Your task to perform on an android device: turn on bluetooth scan Image 0: 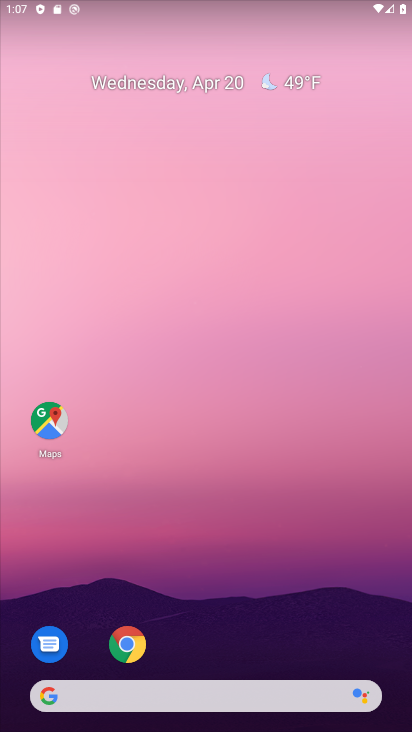
Step 0: drag from (213, 563) to (213, 204)
Your task to perform on an android device: turn on bluetooth scan Image 1: 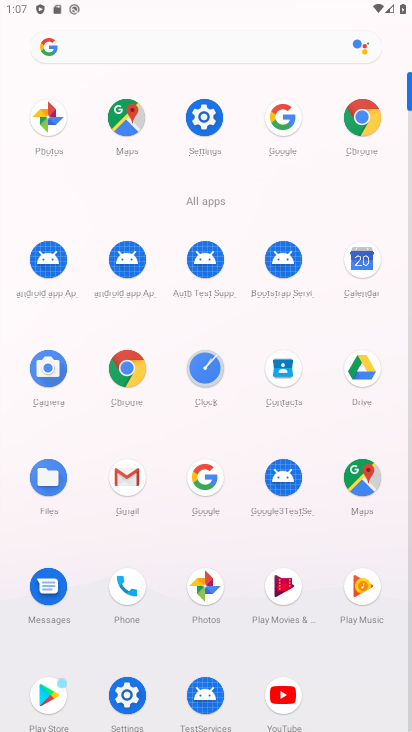
Step 1: click (135, 698)
Your task to perform on an android device: turn on bluetooth scan Image 2: 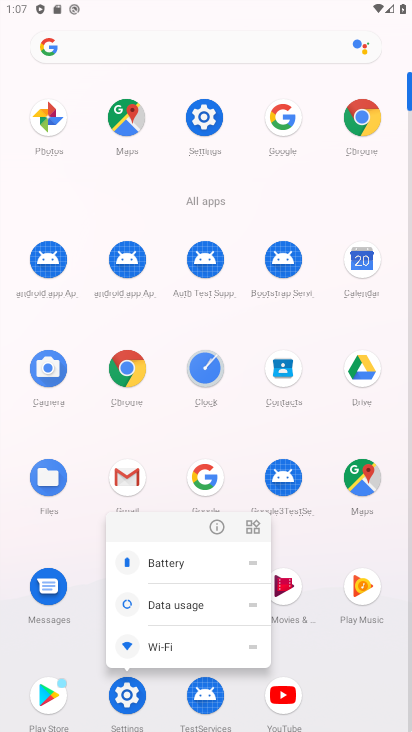
Step 2: click (126, 700)
Your task to perform on an android device: turn on bluetooth scan Image 3: 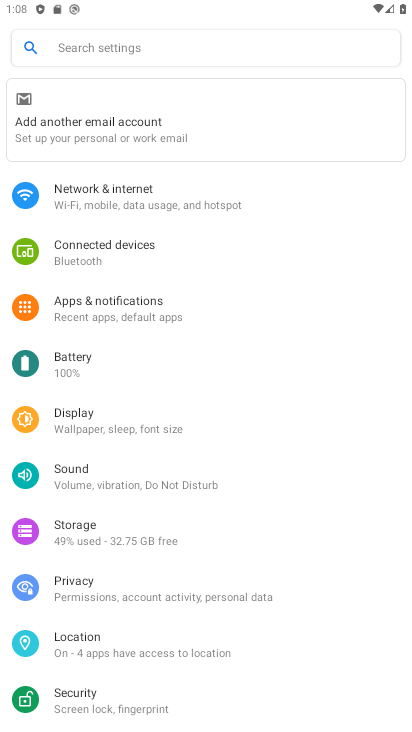
Step 3: drag from (200, 663) to (268, 241)
Your task to perform on an android device: turn on bluetooth scan Image 4: 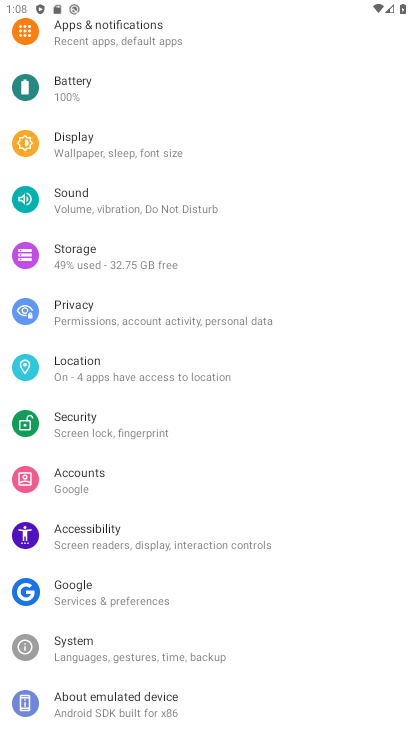
Step 4: click (113, 377)
Your task to perform on an android device: turn on bluetooth scan Image 5: 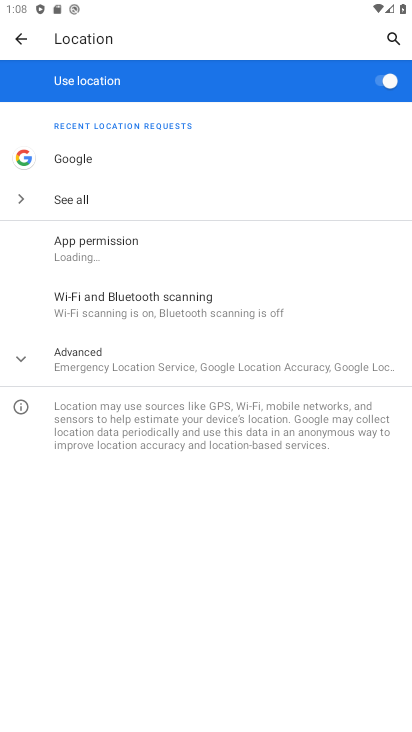
Step 5: click (142, 308)
Your task to perform on an android device: turn on bluetooth scan Image 6: 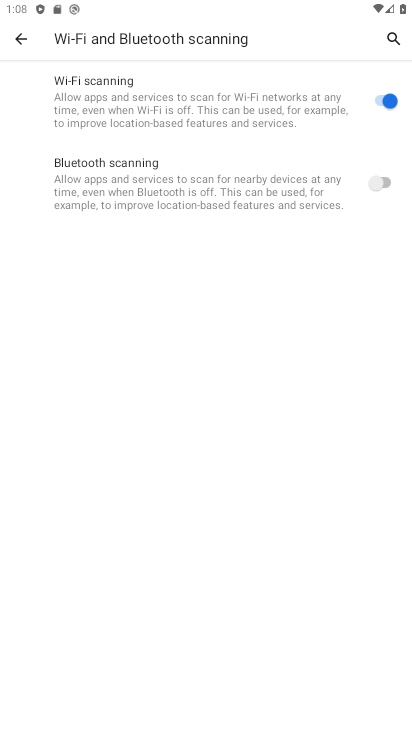
Step 6: click (377, 190)
Your task to perform on an android device: turn on bluetooth scan Image 7: 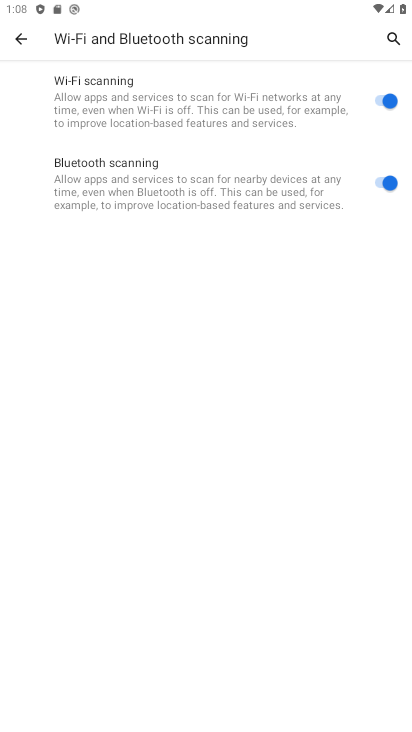
Step 7: task complete